Your task to perform on an android device: Open Google Chrome and click the shortcut for Amazon.com Image 0: 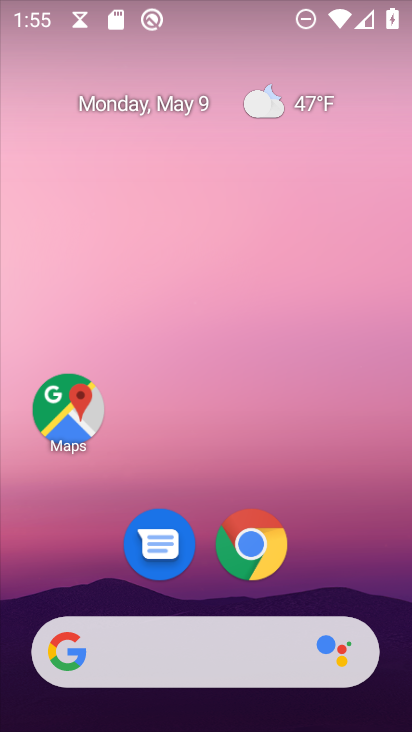
Step 0: click (383, 206)
Your task to perform on an android device: Open Google Chrome and click the shortcut for Amazon.com Image 1: 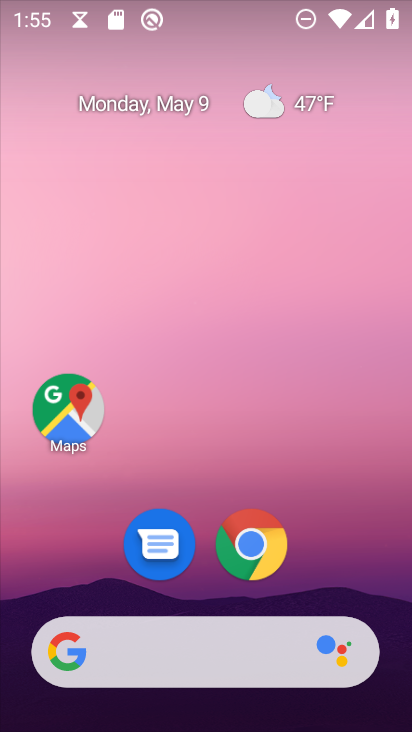
Step 1: drag from (357, 550) to (396, 155)
Your task to perform on an android device: Open Google Chrome and click the shortcut for Amazon.com Image 2: 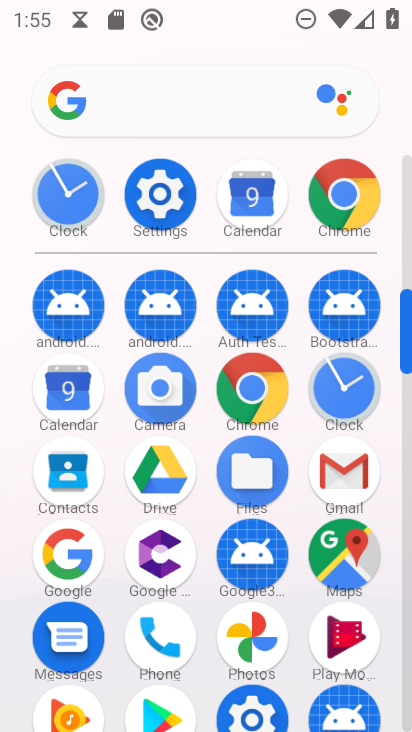
Step 2: click (355, 196)
Your task to perform on an android device: Open Google Chrome and click the shortcut for Amazon.com Image 3: 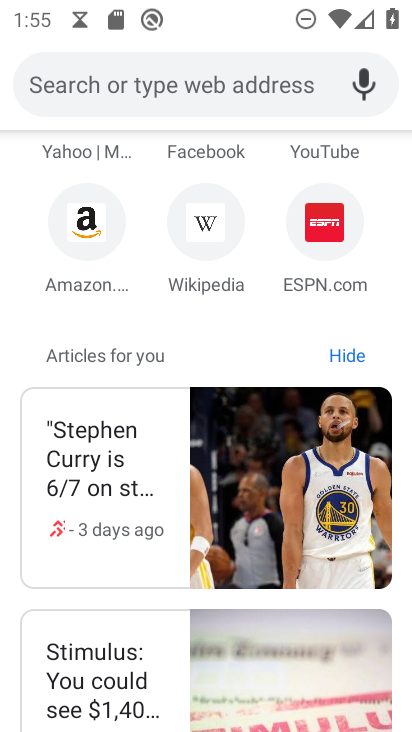
Step 3: click (81, 243)
Your task to perform on an android device: Open Google Chrome and click the shortcut for Amazon.com Image 4: 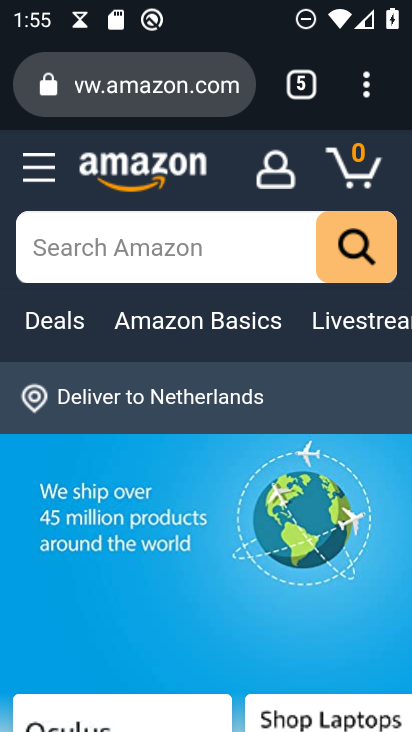
Step 4: drag from (353, 105) to (201, 476)
Your task to perform on an android device: Open Google Chrome and click the shortcut for Amazon.com Image 5: 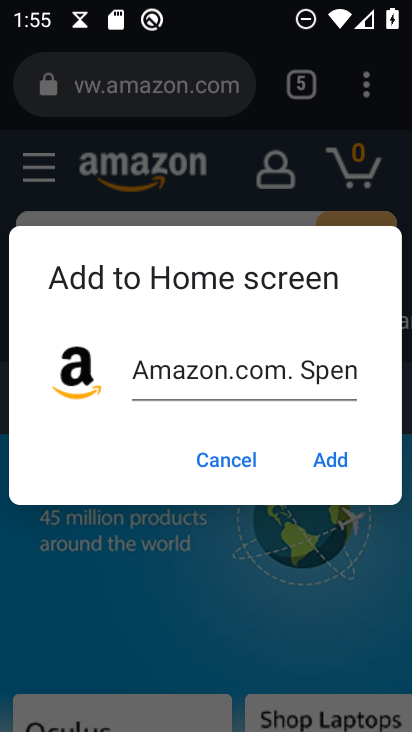
Step 5: click (334, 454)
Your task to perform on an android device: Open Google Chrome and click the shortcut for Amazon.com Image 6: 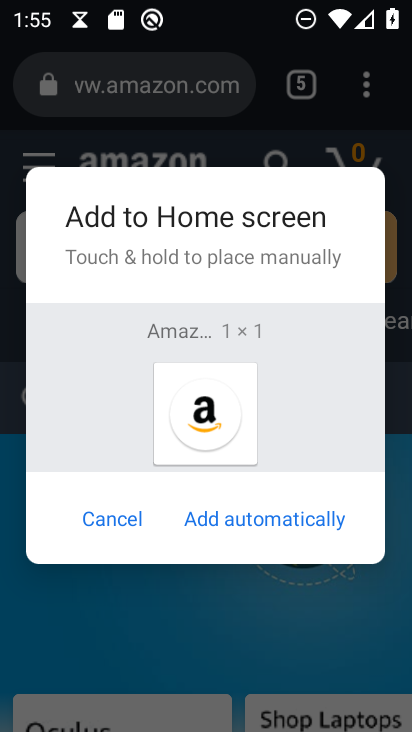
Step 6: click (289, 519)
Your task to perform on an android device: Open Google Chrome and click the shortcut for Amazon.com Image 7: 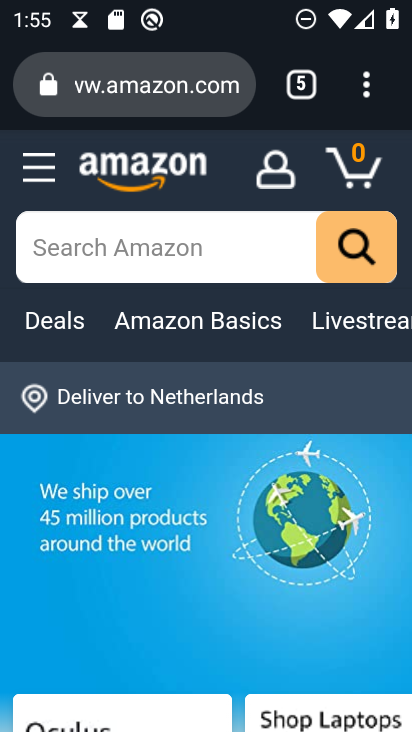
Step 7: task complete